Your task to perform on an android device: turn off airplane mode Image 0: 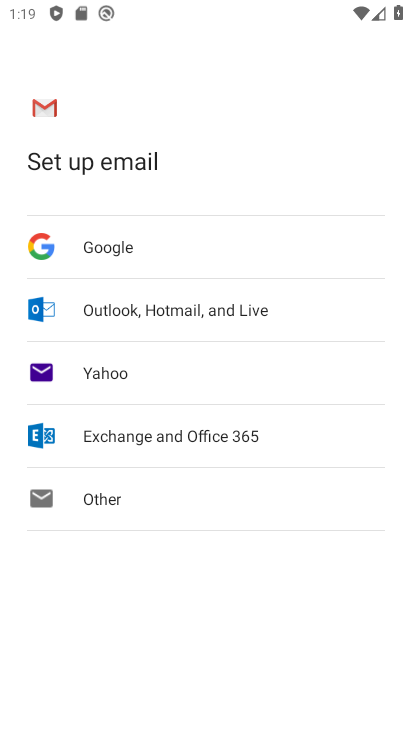
Step 0: press back button
Your task to perform on an android device: turn off airplane mode Image 1: 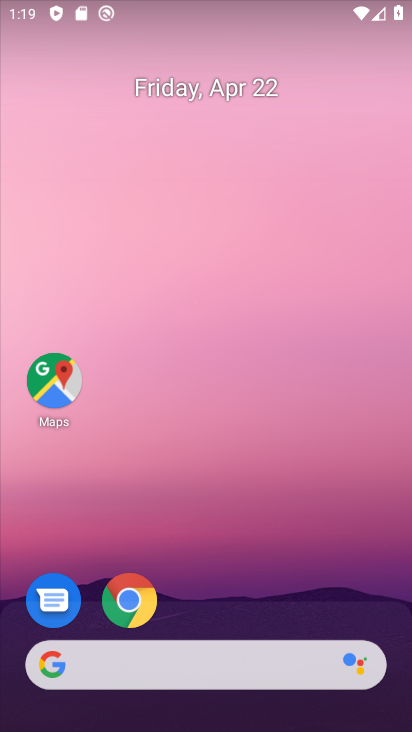
Step 1: drag from (218, 558) to (292, 9)
Your task to perform on an android device: turn off airplane mode Image 2: 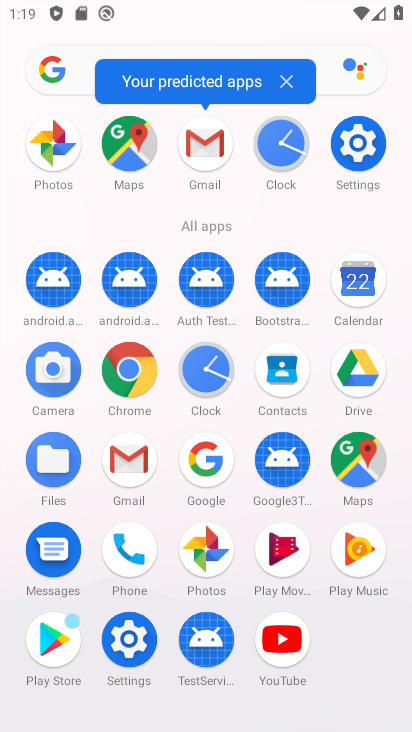
Step 2: click (130, 645)
Your task to perform on an android device: turn off airplane mode Image 3: 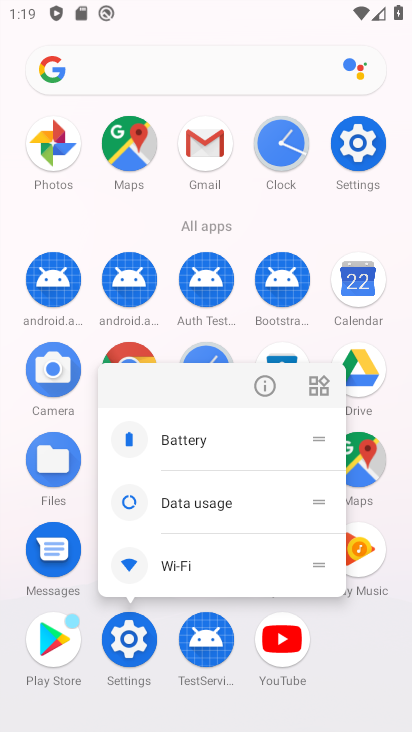
Step 3: click (124, 633)
Your task to perform on an android device: turn off airplane mode Image 4: 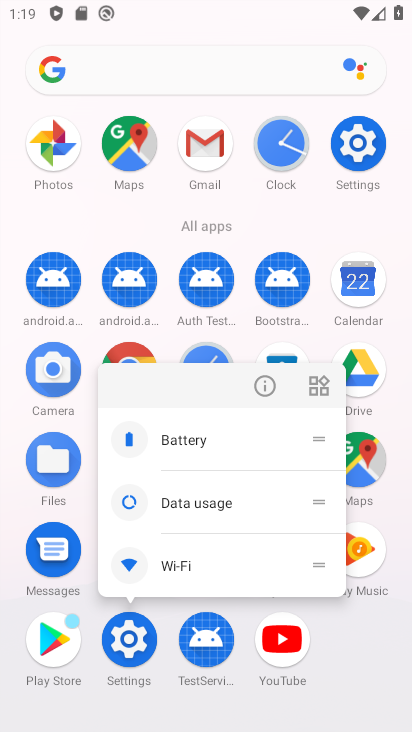
Step 4: click (125, 628)
Your task to perform on an android device: turn off airplane mode Image 5: 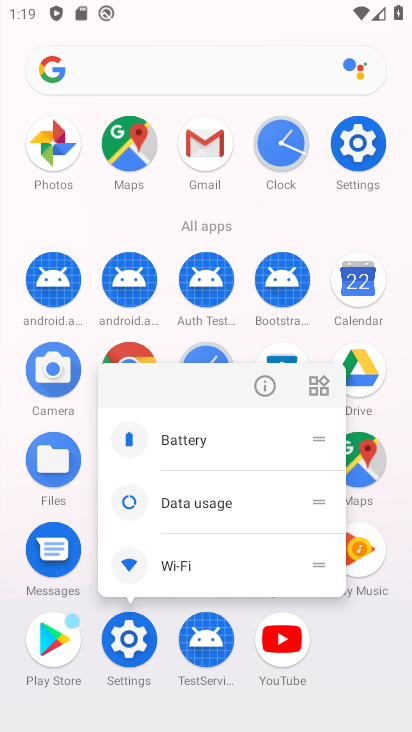
Step 5: click (142, 648)
Your task to perform on an android device: turn off airplane mode Image 6: 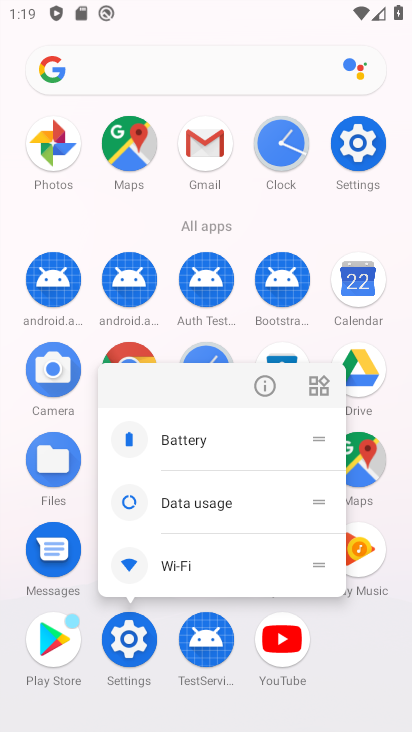
Step 6: click (133, 630)
Your task to perform on an android device: turn off airplane mode Image 7: 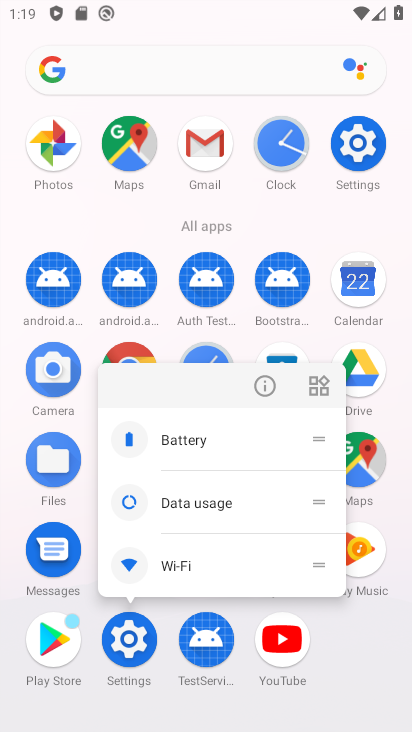
Step 7: click (140, 636)
Your task to perform on an android device: turn off airplane mode Image 8: 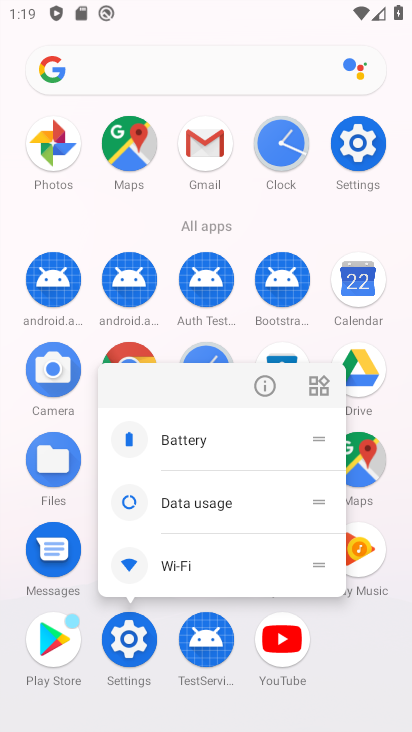
Step 8: click (135, 638)
Your task to perform on an android device: turn off airplane mode Image 9: 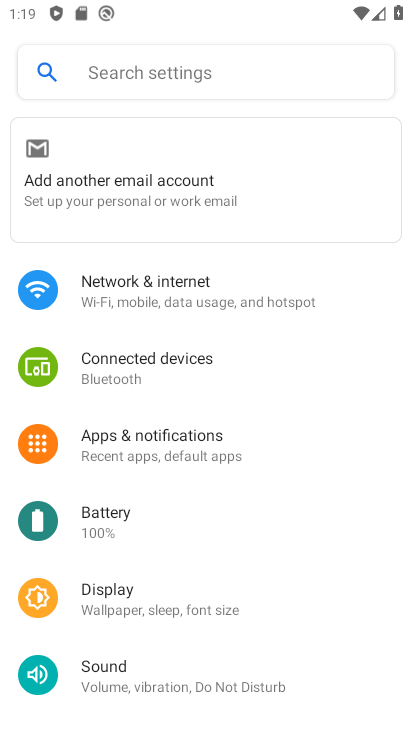
Step 9: click (190, 293)
Your task to perform on an android device: turn off airplane mode Image 10: 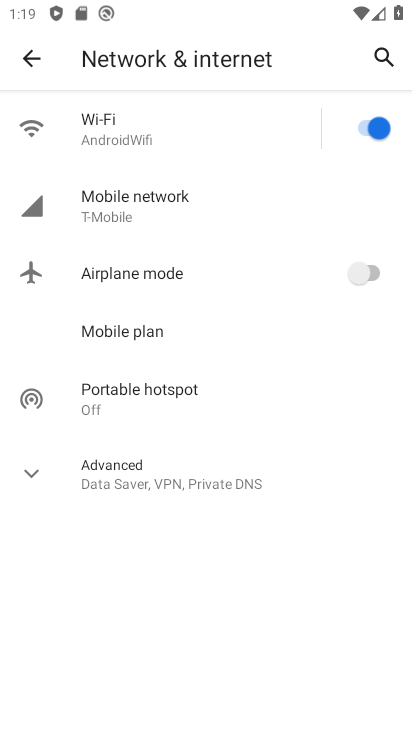
Step 10: task complete